Your task to perform on an android device: change timer sound Image 0: 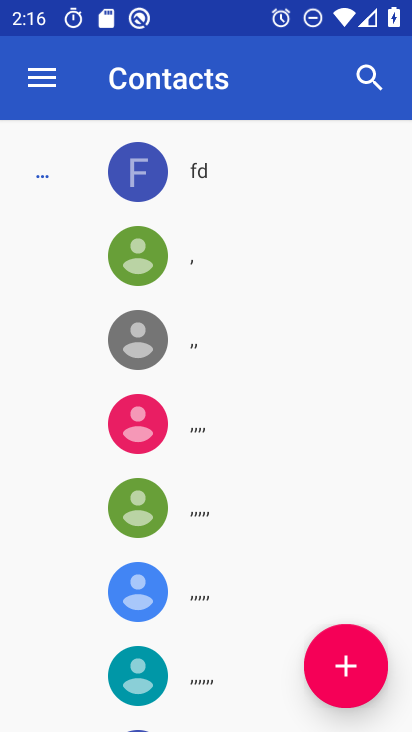
Step 0: press home button
Your task to perform on an android device: change timer sound Image 1: 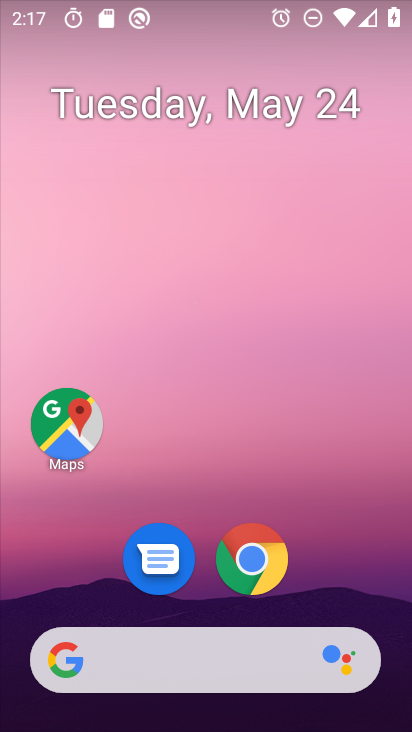
Step 1: drag from (377, 611) to (365, 25)
Your task to perform on an android device: change timer sound Image 2: 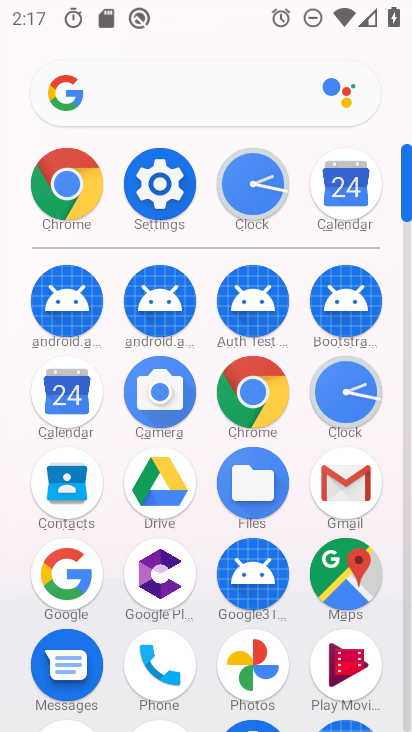
Step 2: click (160, 194)
Your task to perform on an android device: change timer sound Image 3: 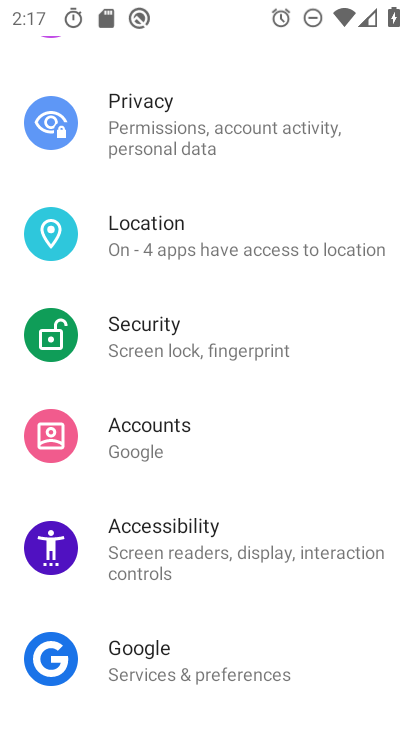
Step 3: drag from (292, 681) to (281, 283)
Your task to perform on an android device: change timer sound Image 4: 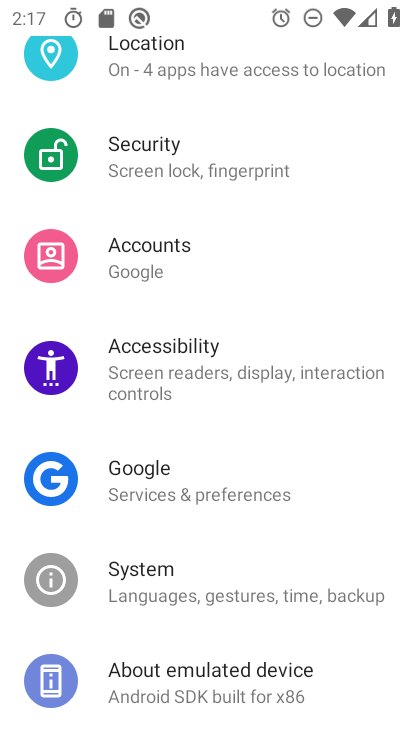
Step 4: press home button
Your task to perform on an android device: change timer sound Image 5: 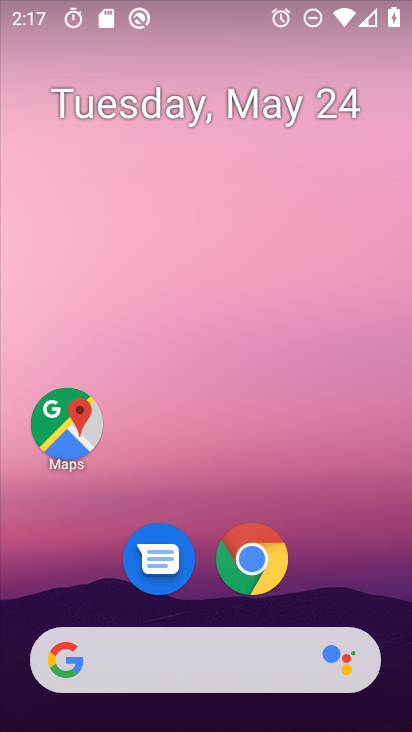
Step 5: drag from (379, 498) to (318, 147)
Your task to perform on an android device: change timer sound Image 6: 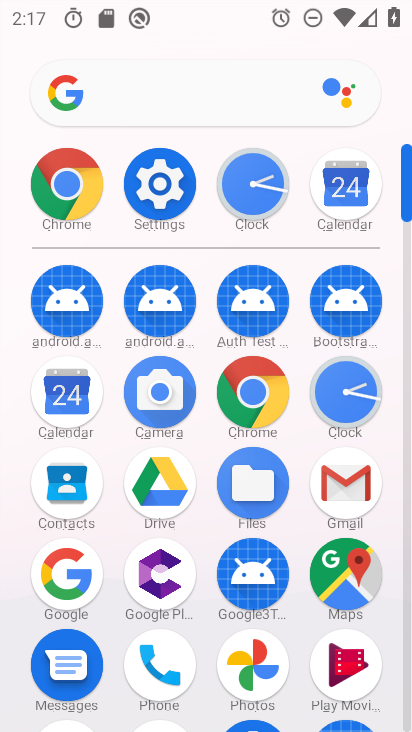
Step 6: click (337, 401)
Your task to perform on an android device: change timer sound Image 7: 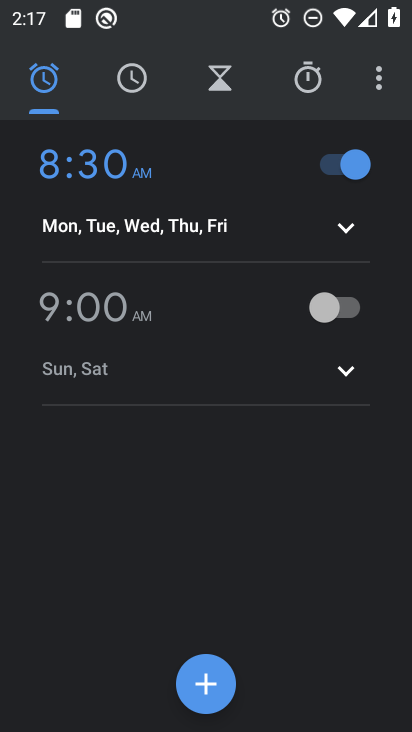
Step 7: click (382, 73)
Your task to perform on an android device: change timer sound Image 8: 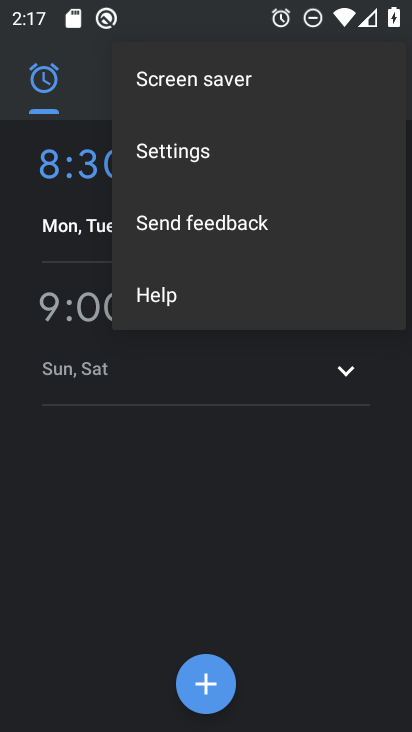
Step 8: click (144, 148)
Your task to perform on an android device: change timer sound Image 9: 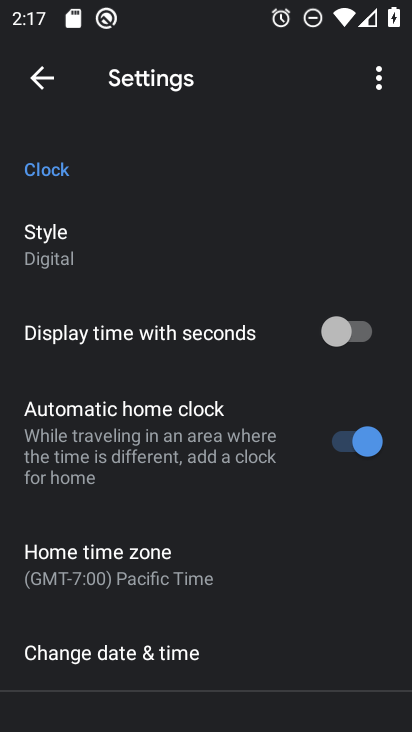
Step 9: drag from (246, 661) to (251, 231)
Your task to perform on an android device: change timer sound Image 10: 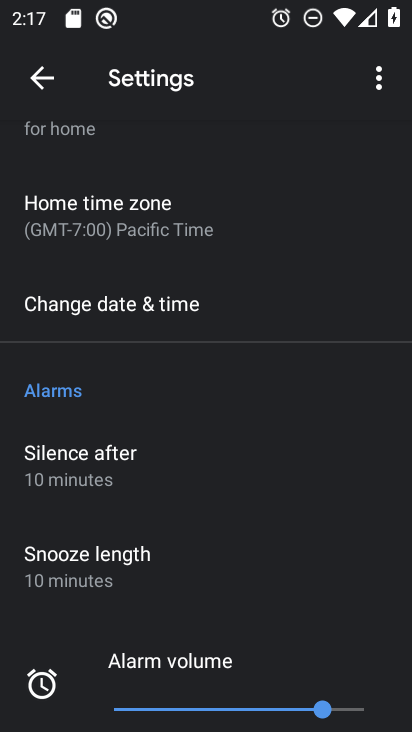
Step 10: drag from (231, 594) to (225, 335)
Your task to perform on an android device: change timer sound Image 11: 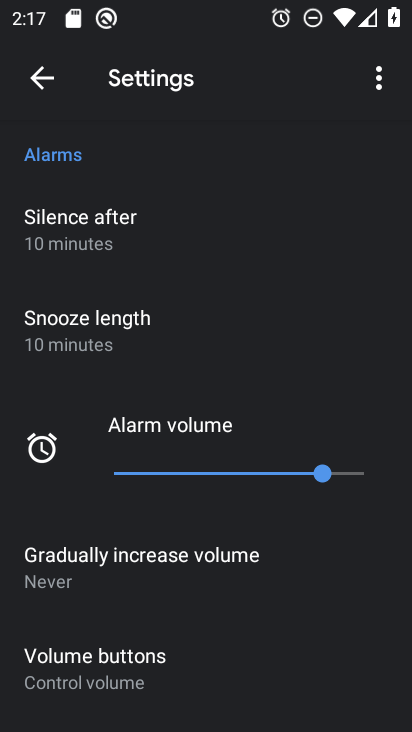
Step 11: click (235, 239)
Your task to perform on an android device: change timer sound Image 12: 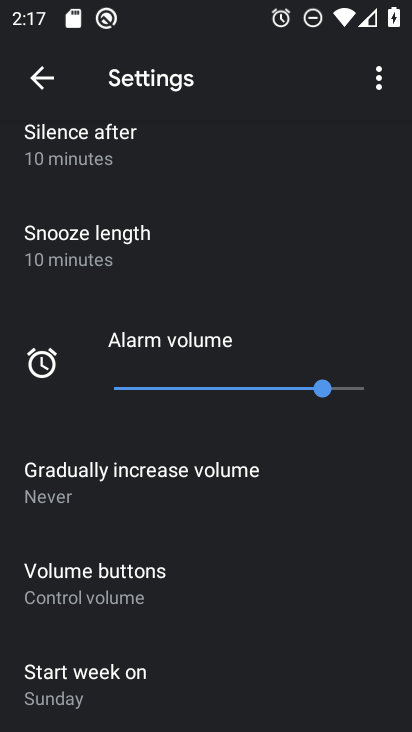
Step 12: drag from (207, 656) to (211, 289)
Your task to perform on an android device: change timer sound Image 13: 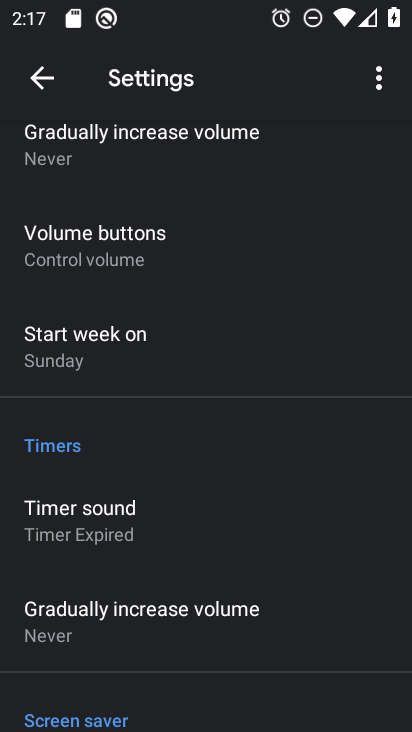
Step 13: click (71, 516)
Your task to perform on an android device: change timer sound Image 14: 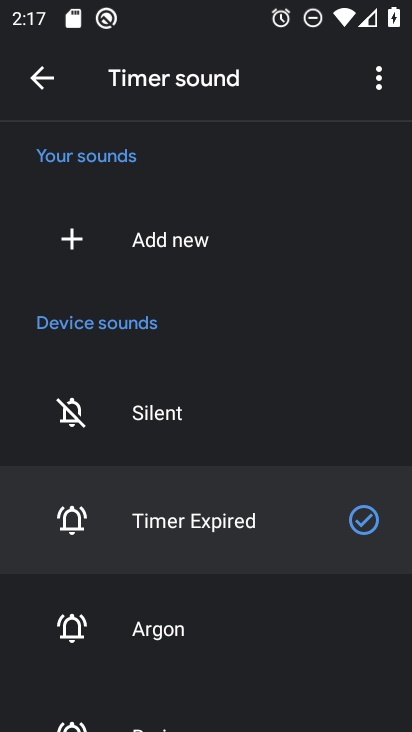
Step 14: click (79, 617)
Your task to perform on an android device: change timer sound Image 15: 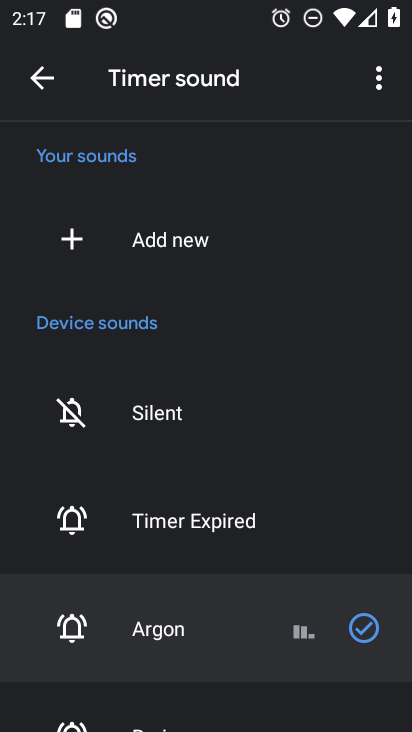
Step 15: task complete